Your task to perform on an android device: turn on sleep mode Image 0: 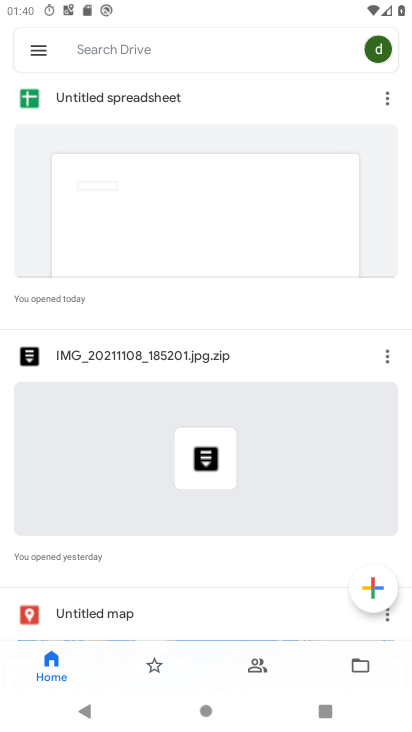
Step 0: press home button
Your task to perform on an android device: turn on sleep mode Image 1: 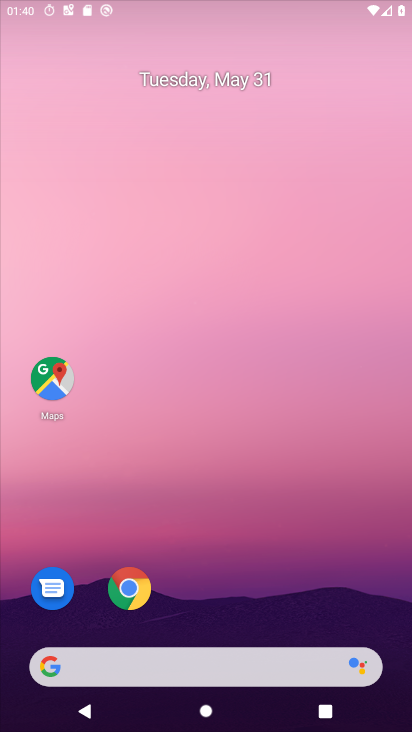
Step 1: drag from (246, 623) to (314, 8)
Your task to perform on an android device: turn on sleep mode Image 2: 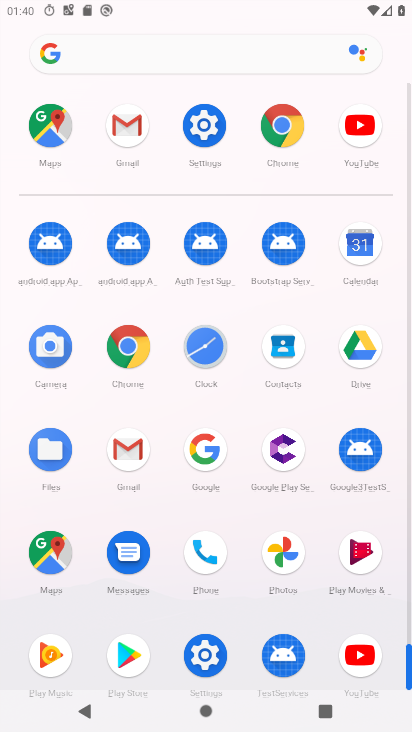
Step 2: click (209, 132)
Your task to perform on an android device: turn on sleep mode Image 3: 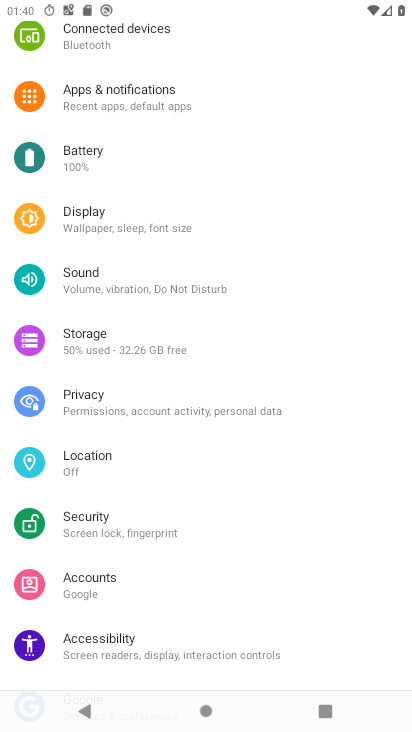
Step 3: drag from (292, 216) to (236, 593)
Your task to perform on an android device: turn on sleep mode Image 4: 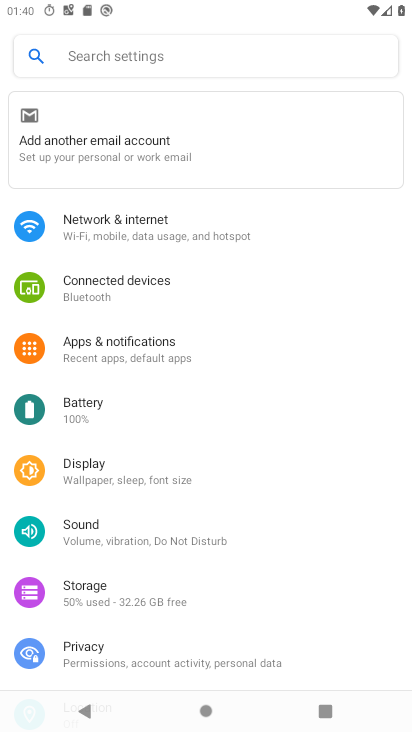
Step 4: click (145, 478)
Your task to perform on an android device: turn on sleep mode Image 5: 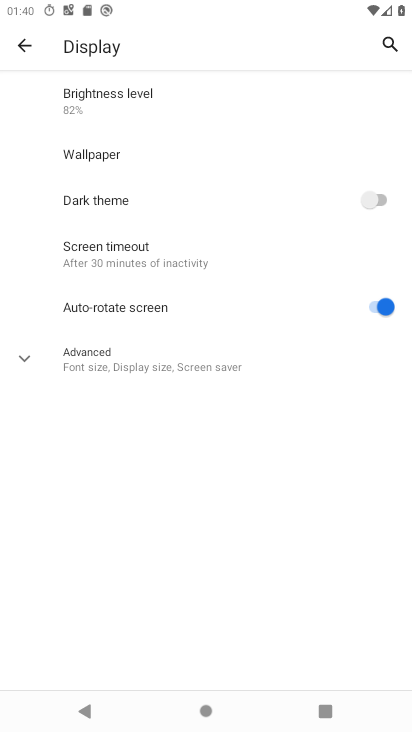
Step 5: task complete